Your task to perform on an android device: allow cookies in the chrome app Image 0: 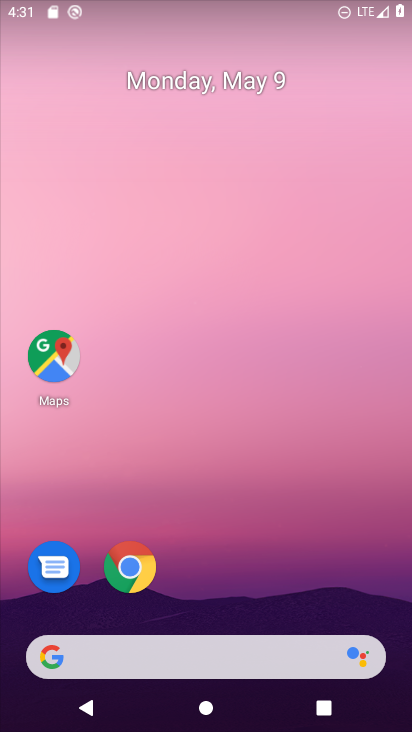
Step 0: click (136, 565)
Your task to perform on an android device: allow cookies in the chrome app Image 1: 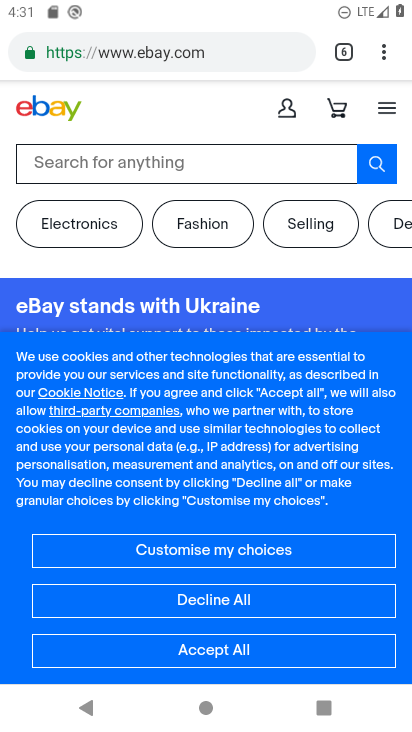
Step 1: click (383, 62)
Your task to perform on an android device: allow cookies in the chrome app Image 2: 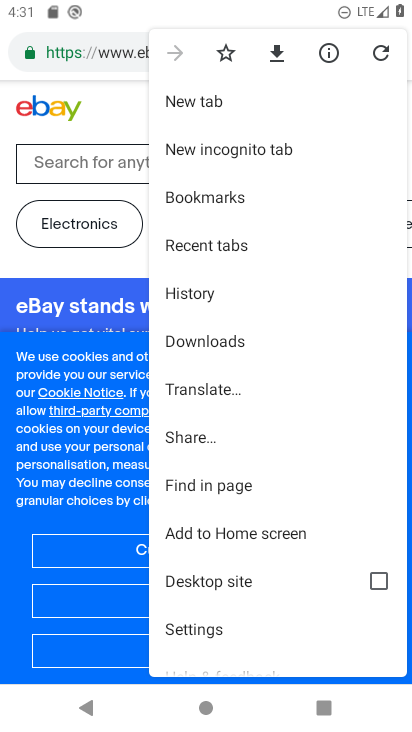
Step 2: click (208, 626)
Your task to perform on an android device: allow cookies in the chrome app Image 3: 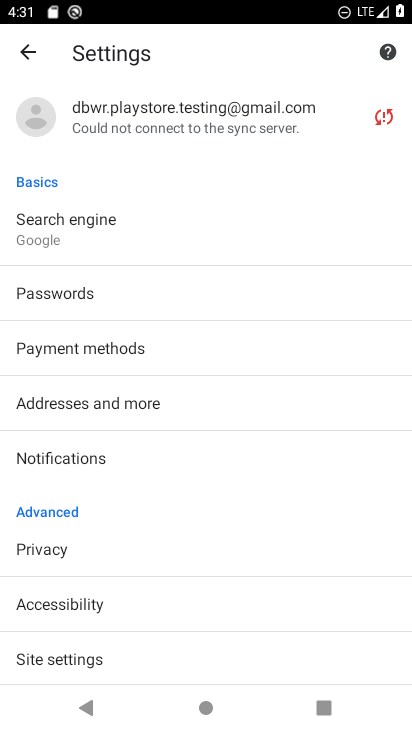
Step 3: click (113, 667)
Your task to perform on an android device: allow cookies in the chrome app Image 4: 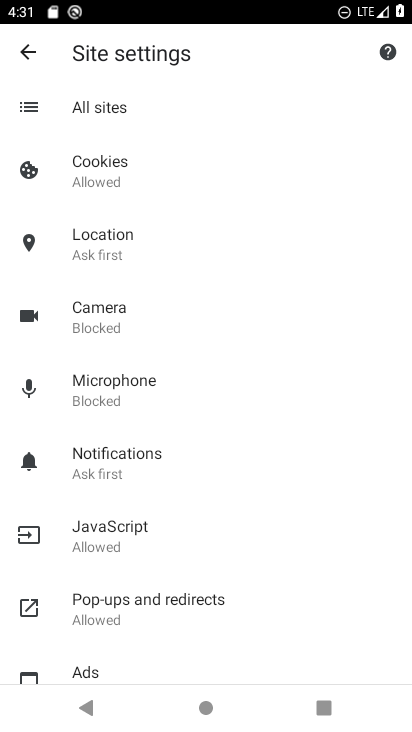
Step 4: click (100, 171)
Your task to perform on an android device: allow cookies in the chrome app Image 5: 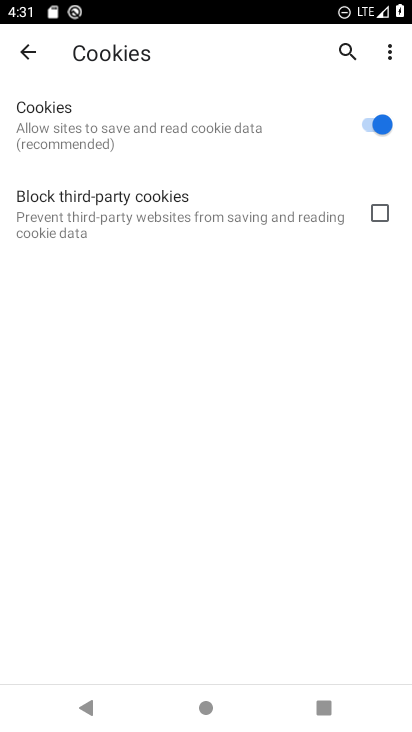
Step 5: task complete